Your task to perform on an android device: Open settings Image 0: 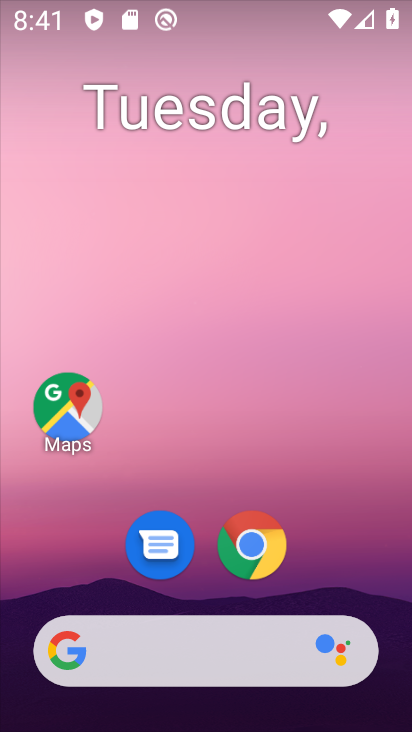
Step 0: drag from (359, 561) to (264, 111)
Your task to perform on an android device: Open settings Image 1: 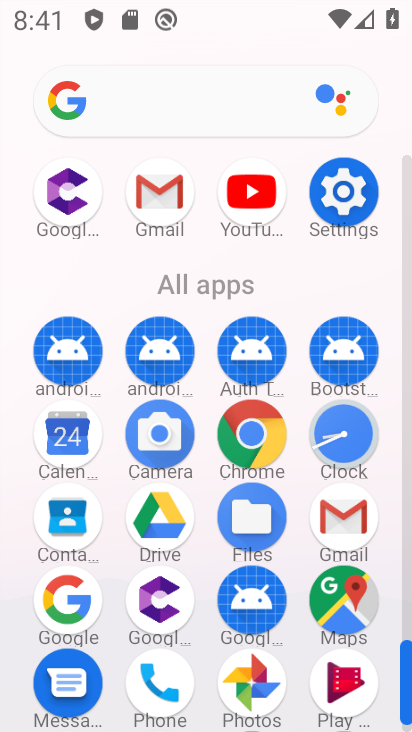
Step 1: click (328, 179)
Your task to perform on an android device: Open settings Image 2: 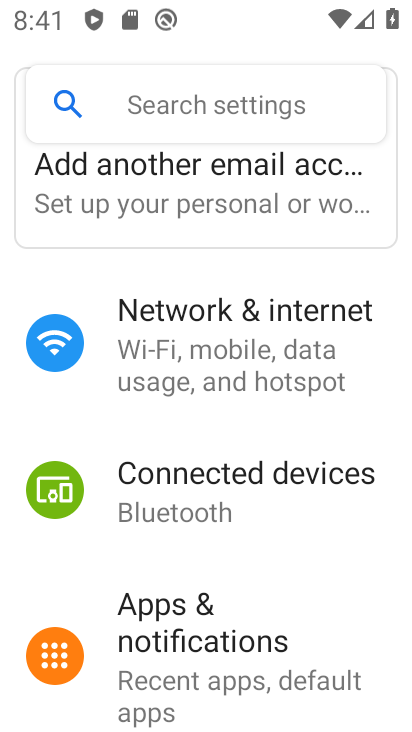
Step 2: task complete